Your task to perform on an android device: Go to location settings Image 0: 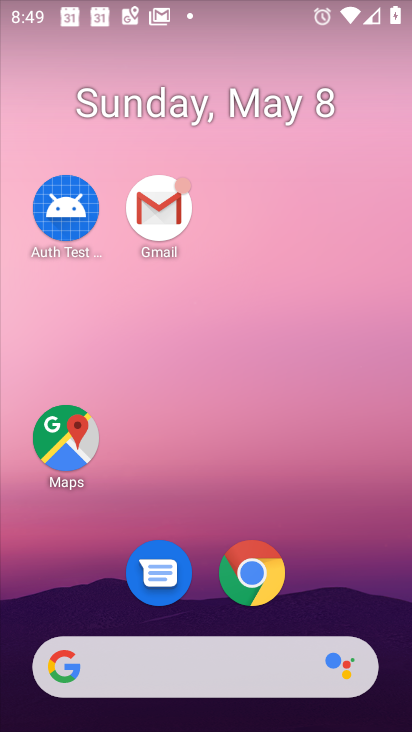
Step 0: drag from (300, 492) to (119, 146)
Your task to perform on an android device: Go to location settings Image 1: 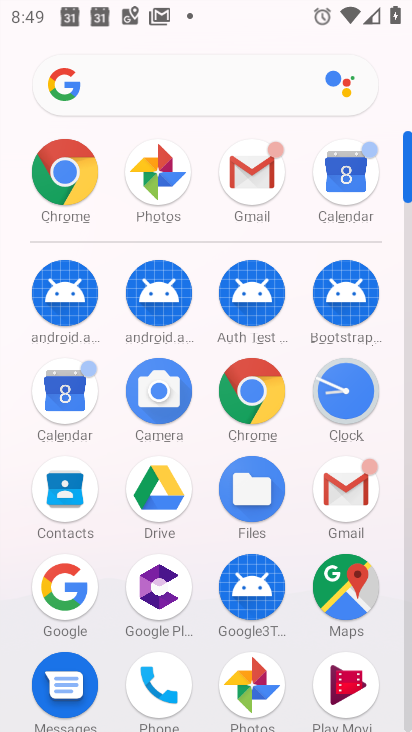
Step 1: click (68, 165)
Your task to perform on an android device: Go to location settings Image 2: 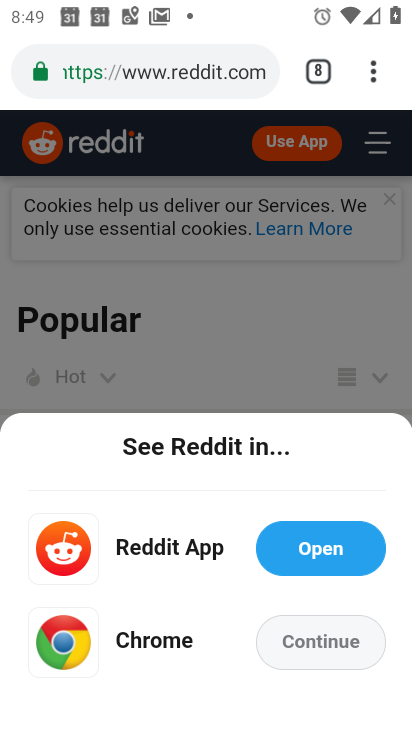
Step 2: press home button
Your task to perform on an android device: Go to location settings Image 3: 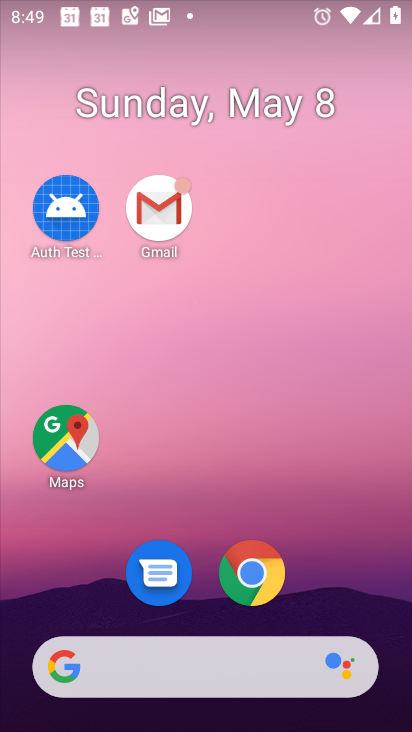
Step 3: drag from (309, 573) to (201, 233)
Your task to perform on an android device: Go to location settings Image 4: 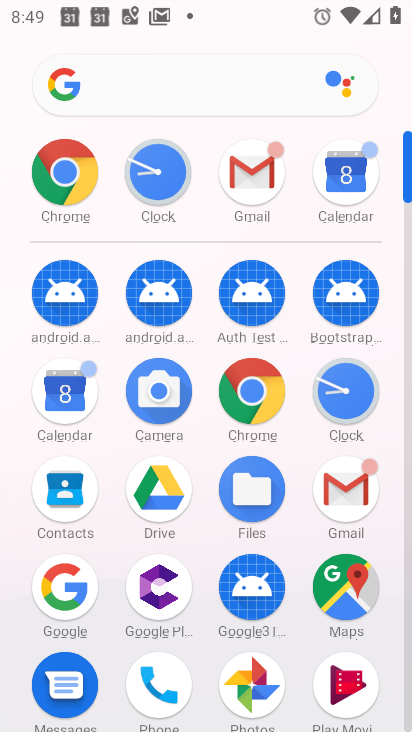
Step 4: drag from (269, 617) to (259, 295)
Your task to perform on an android device: Go to location settings Image 5: 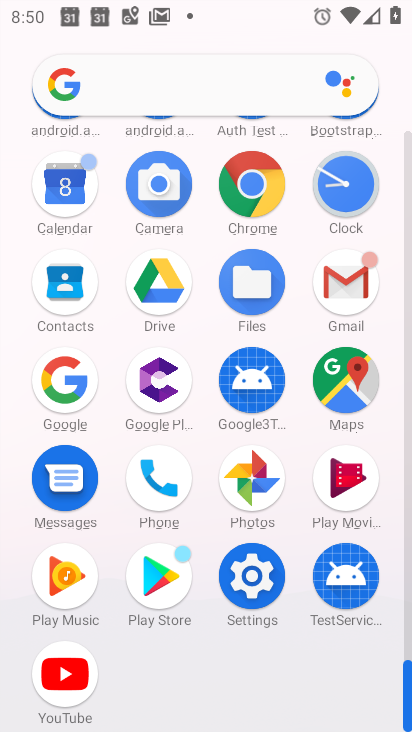
Step 5: click (250, 576)
Your task to perform on an android device: Go to location settings Image 6: 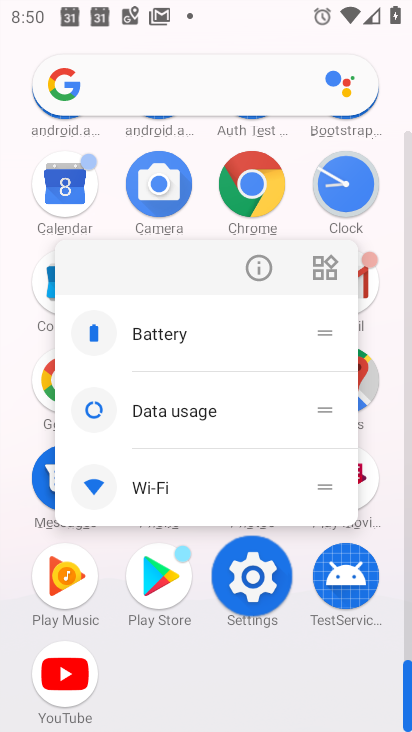
Step 6: click (249, 576)
Your task to perform on an android device: Go to location settings Image 7: 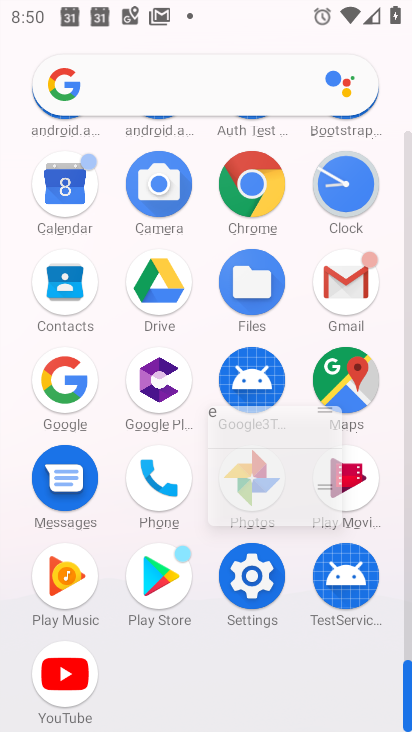
Step 7: click (249, 576)
Your task to perform on an android device: Go to location settings Image 8: 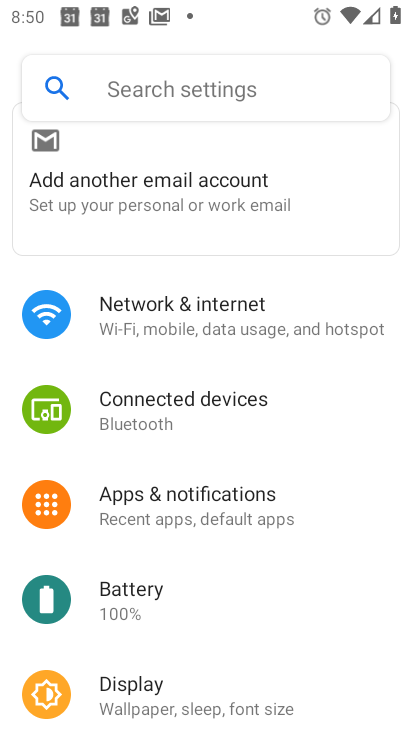
Step 8: drag from (198, 574) to (151, 305)
Your task to perform on an android device: Go to location settings Image 9: 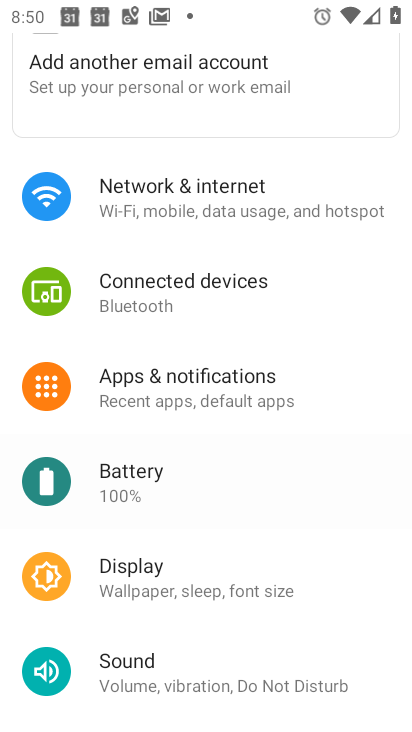
Step 9: drag from (247, 516) to (271, 149)
Your task to perform on an android device: Go to location settings Image 10: 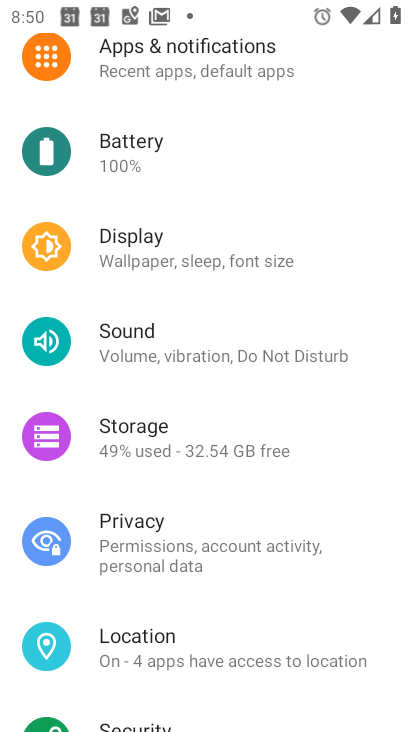
Step 10: drag from (163, 515) to (133, 197)
Your task to perform on an android device: Go to location settings Image 11: 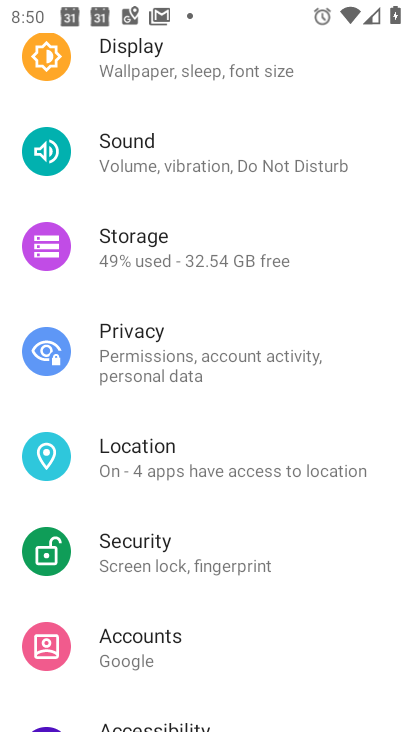
Step 11: click (150, 462)
Your task to perform on an android device: Go to location settings Image 12: 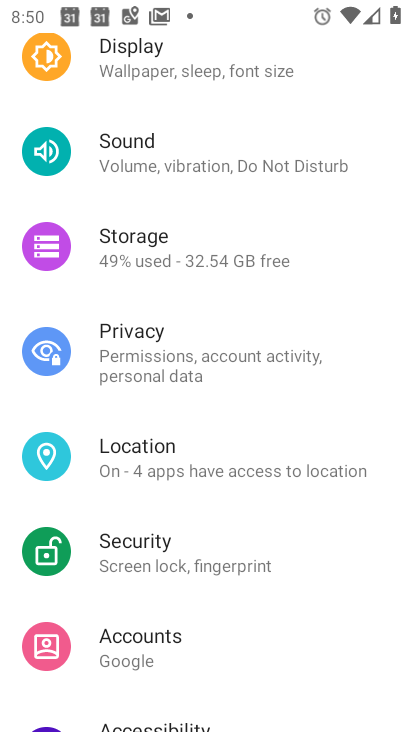
Step 12: click (154, 457)
Your task to perform on an android device: Go to location settings Image 13: 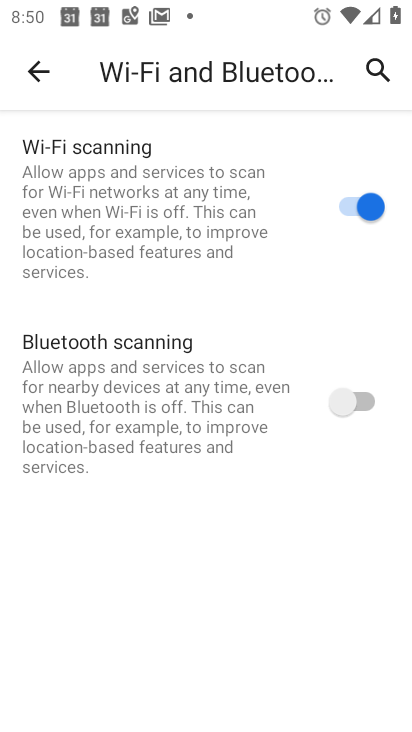
Step 13: click (31, 71)
Your task to perform on an android device: Go to location settings Image 14: 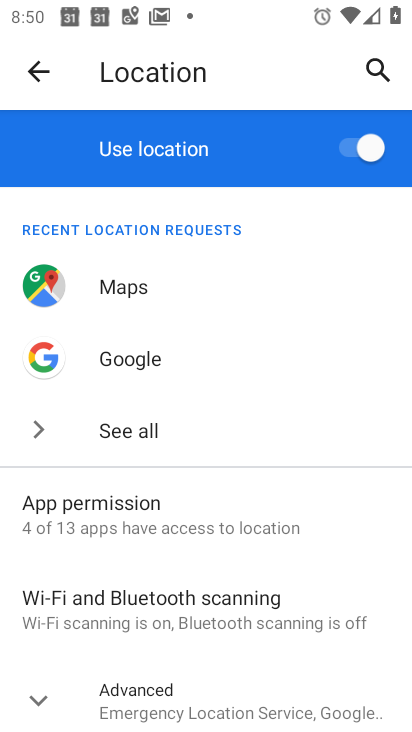
Step 14: task complete